Your task to perform on an android device: add a contact Image 0: 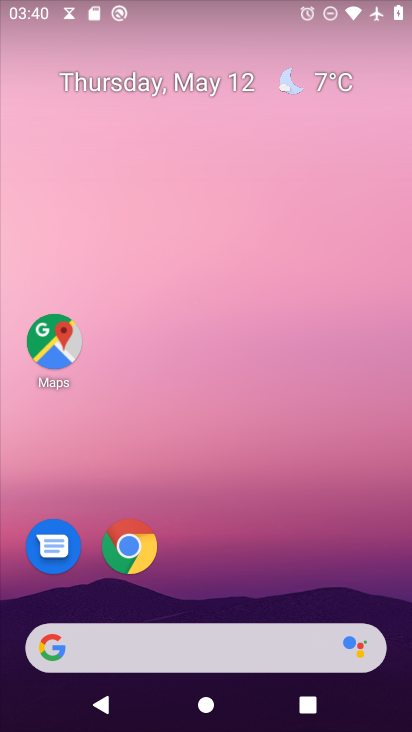
Step 0: drag from (153, 646) to (203, 158)
Your task to perform on an android device: add a contact Image 1: 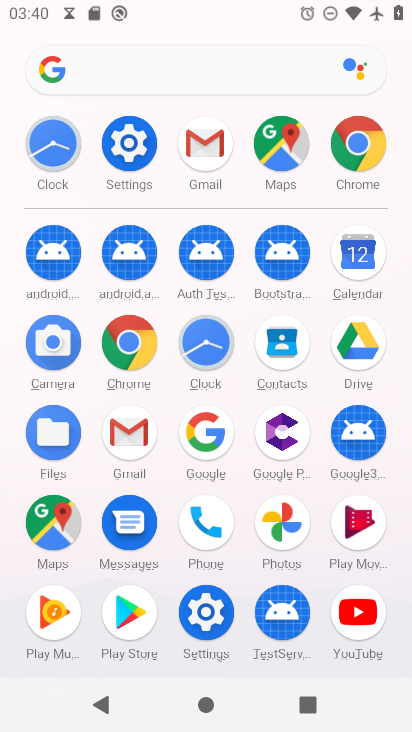
Step 1: click (284, 345)
Your task to perform on an android device: add a contact Image 2: 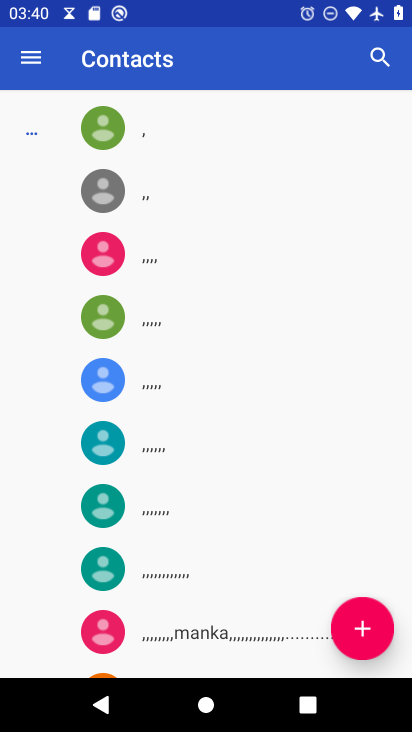
Step 2: click (355, 636)
Your task to perform on an android device: add a contact Image 3: 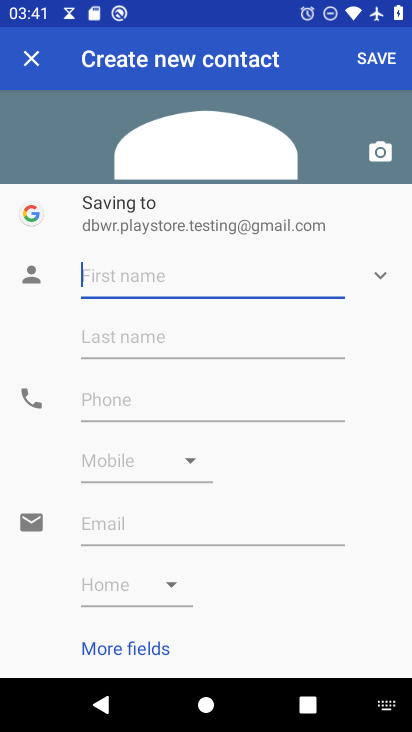
Step 3: type "sderf"
Your task to perform on an android device: add a contact Image 4: 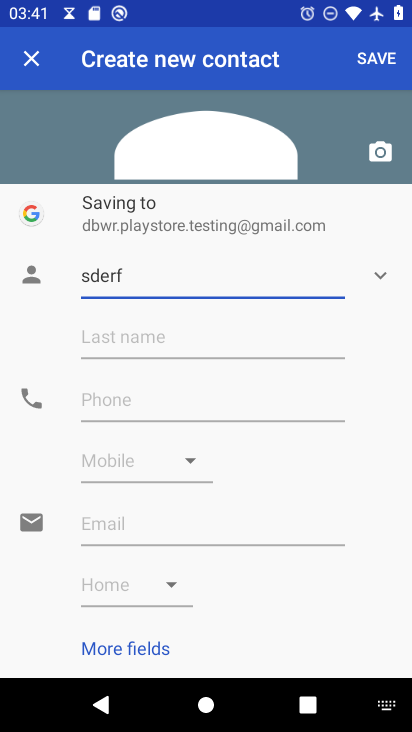
Step 4: click (110, 404)
Your task to perform on an android device: add a contact Image 5: 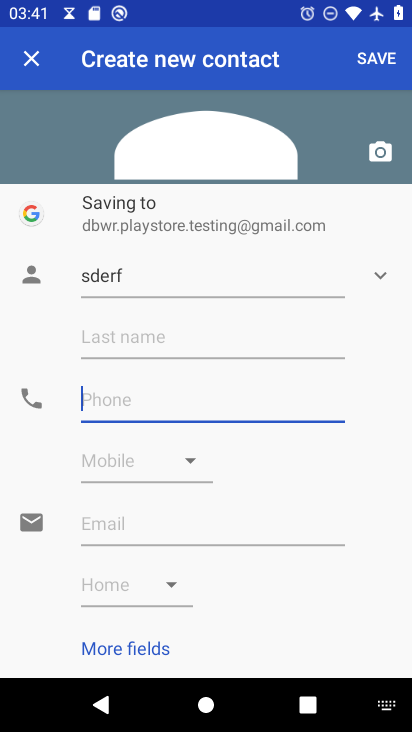
Step 5: type "1432"
Your task to perform on an android device: add a contact Image 6: 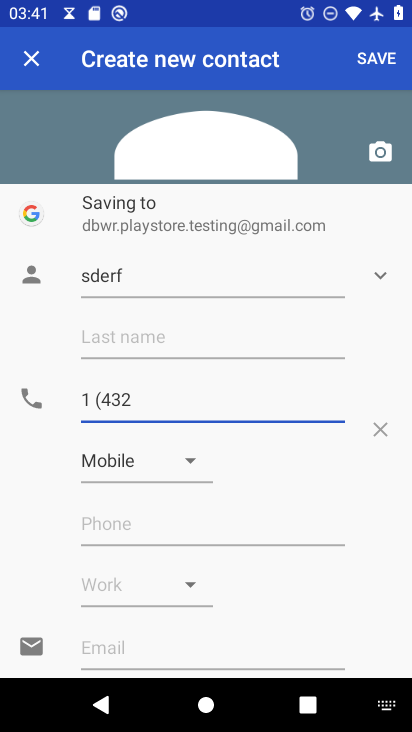
Step 6: click (377, 58)
Your task to perform on an android device: add a contact Image 7: 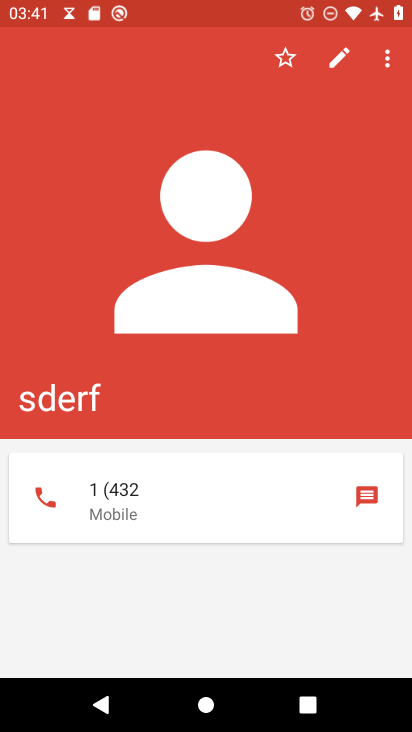
Step 7: task complete